Your task to perform on an android device: What's on my calendar tomorrow? Image 0: 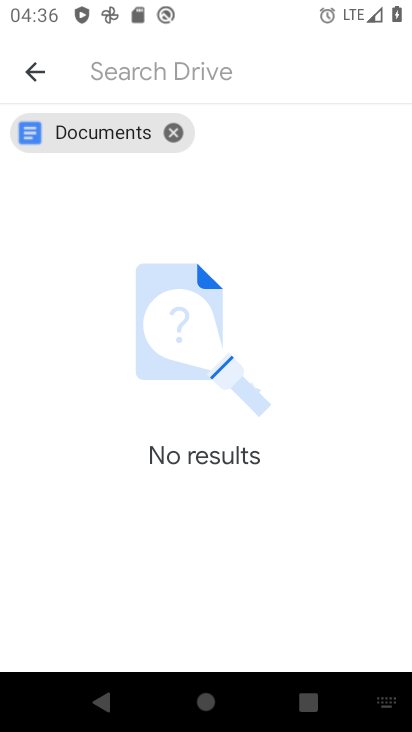
Step 0: press home button
Your task to perform on an android device: What's on my calendar tomorrow? Image 1: 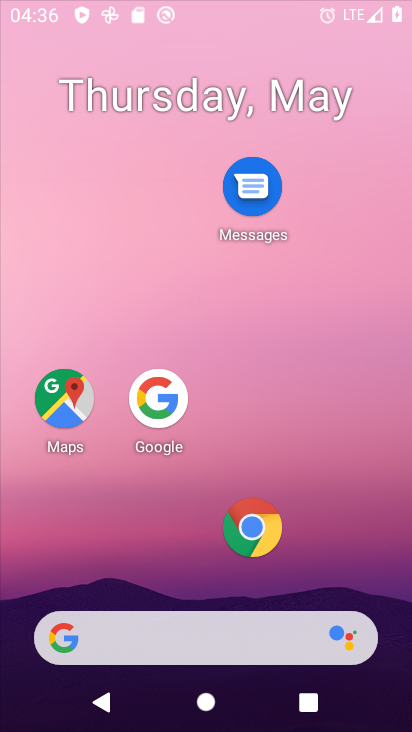
Step 1: drag from (142, 606) to (209, 17)
Your task to perform on an android device: What's on my calendar tomorrow? Image 2: 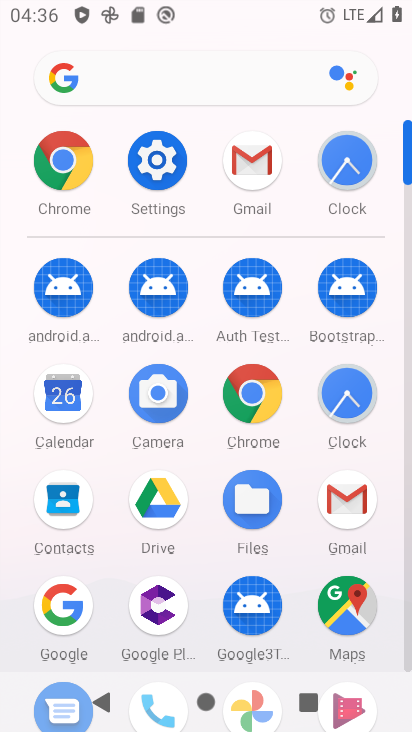
Step 2: click (63, 381)
Your task to perform on an android device: What's on my calendar tomorrow? Image 3: 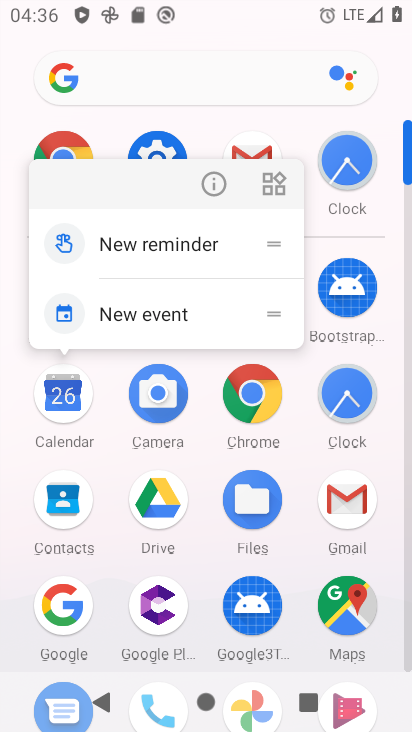
Step 3: click (213, 184)
Your task to perform on an android device: What's on my calendar tomorrow? Image 4: 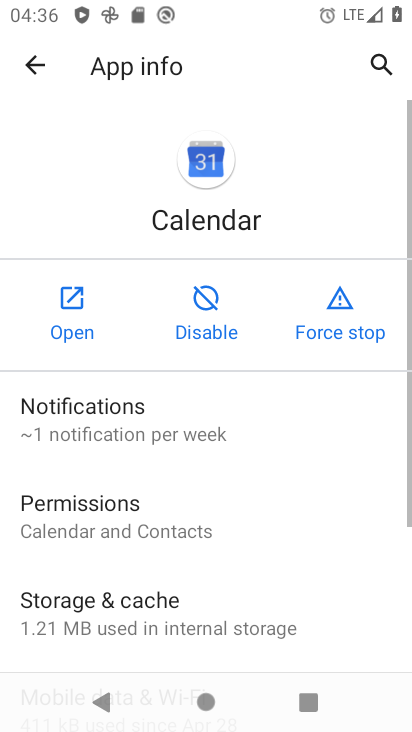
Step 4: click (76, 304)
Your task to perform on an android device: What's on my calendar tomorrow? Image 5: 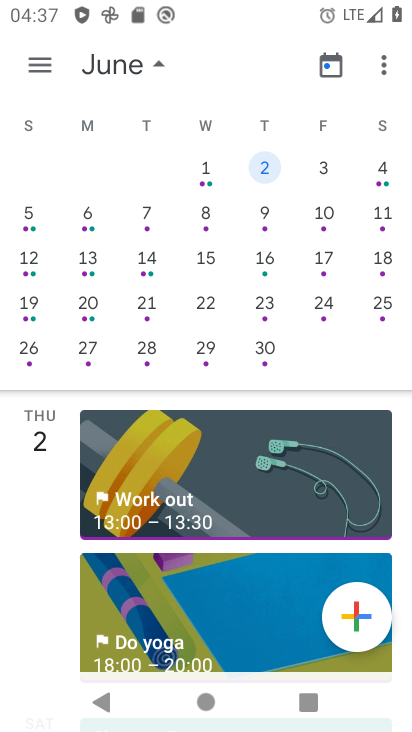
Step 5: drag from (283, 369) to (301, 311)
Your task to perform on an android device: What's on my calendar tomorrow? Image 6: 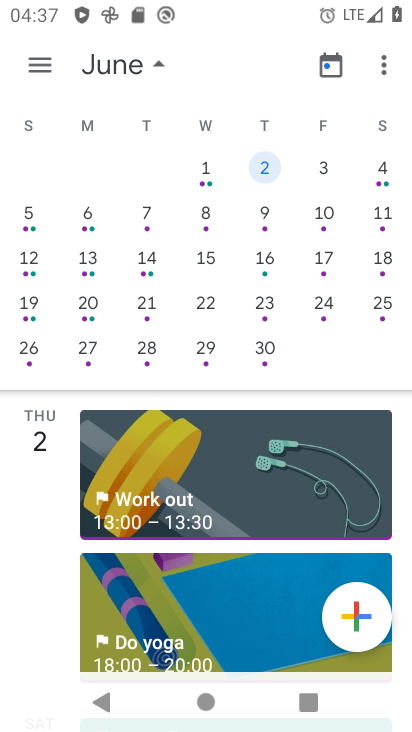
Step 6: drag from (25, 300) to (405, 239)
Your task to perform on an android device: What's on my calendar tomorrow? Image 7: 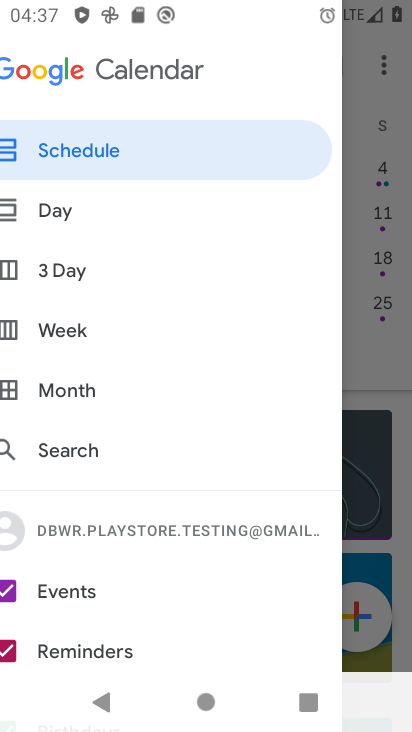
Step 7: press back button
Your task to perform on an android device: What's on my calendar tomorrow? Image 8: 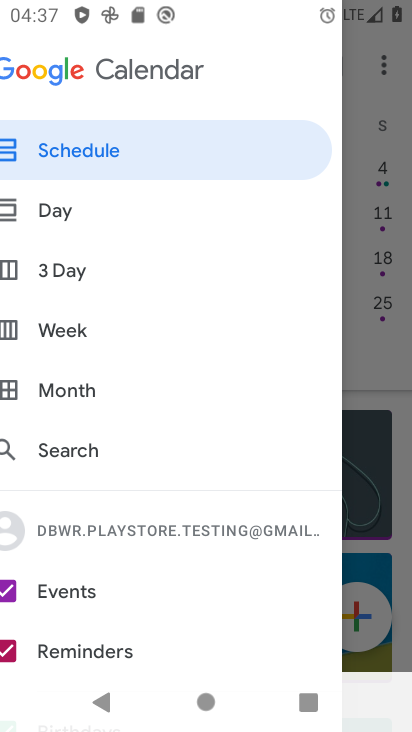
Step 8: click (373, 384)
Your task to perform on an android device: What's on my calendar tomorrow? Image 9: 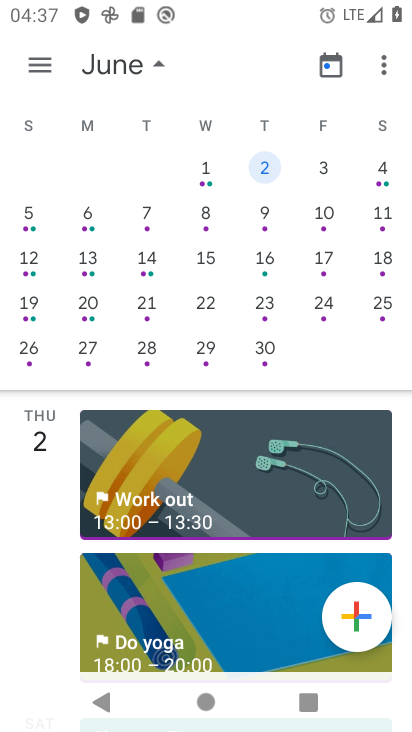
Step 9: drag from (367, 178) to (400, 164)
Your task to perform on an android device: What's on my calendar tomorrow? Image 10: 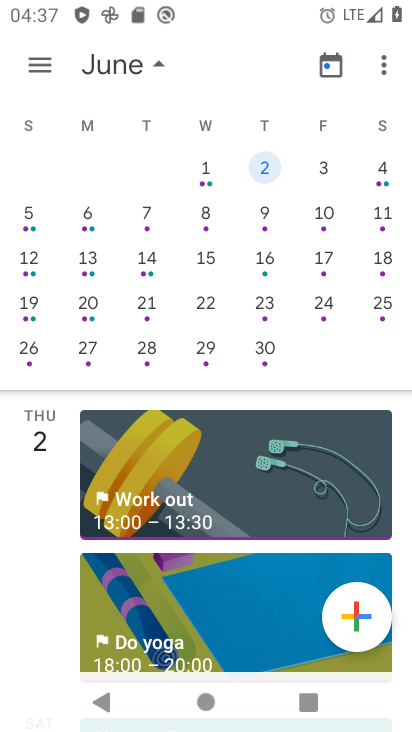
Step 10: drag from (65, 328) to (411, 104)
Your task to perform on an android device: What's on my calendar tomorrow? Image 11: 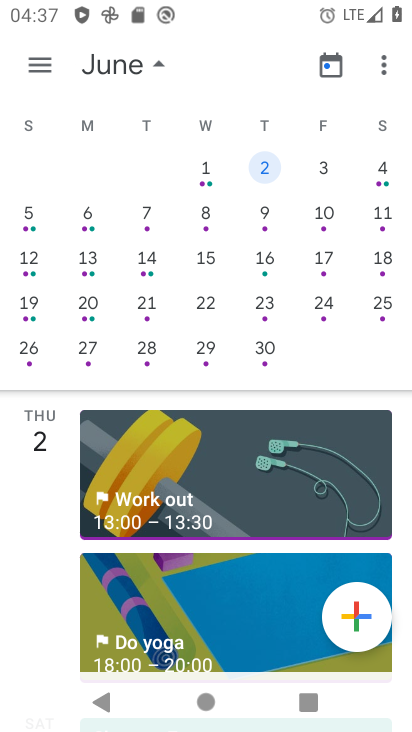
Step 11: drag from (69, 351) to (411, 169)
Your task to perform on an android device: What's on my calendar tomorrow? Image 12: 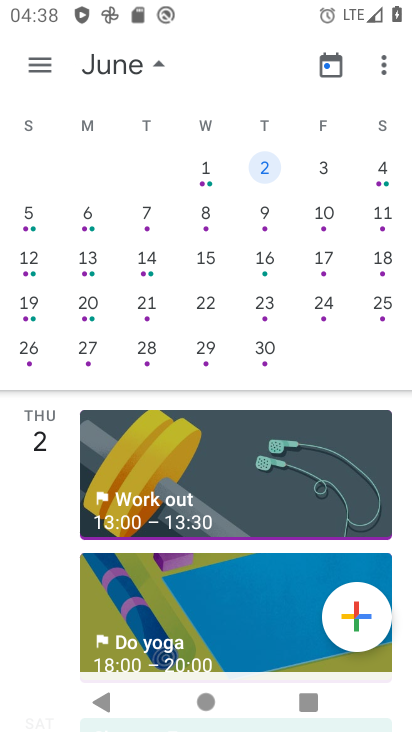
Step 12: drag from (20, 222) to (411, 243)
Your task to perform on an android device: What's on my calendar tomorrow? Image 13: 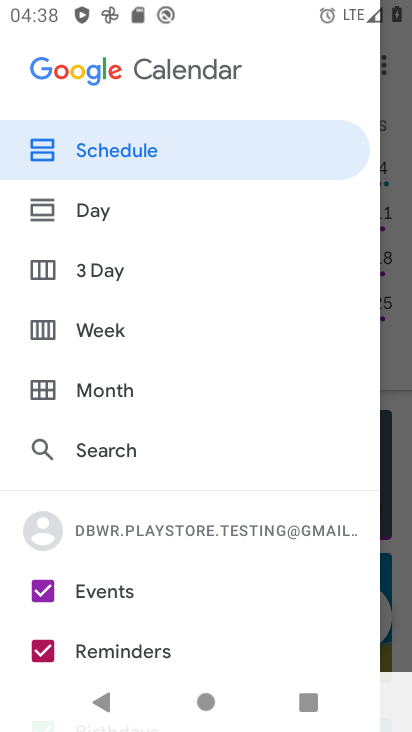
Step 13: press back button
Your task to perform on an android device: What's on my calendar tomorrow? Image 14: 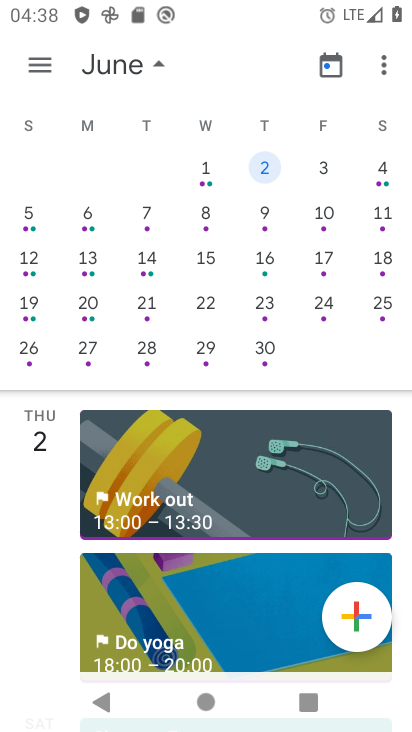
Step 14: drag from (100, 326) to (393, 195)
Your task to perform on an android device: What's on my calendar tomorrow? Image 15: 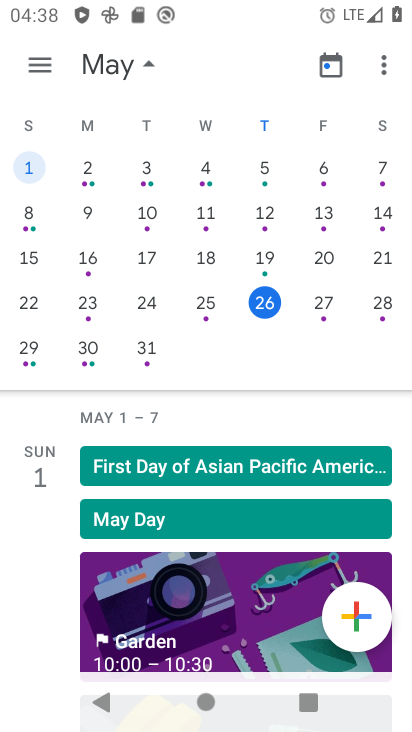
Step 15: click (263, 313)
Your task to perform on an android device: What's on my calendar tomorrow? Image 16: 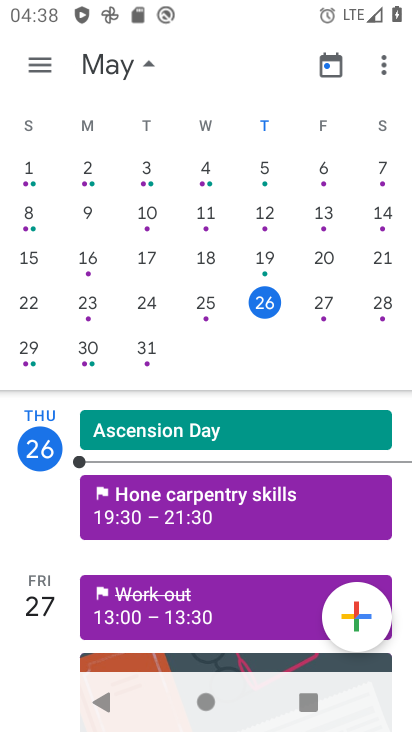
Step 16: task complete